Your task to perform on an android device: set the timer Image 0: 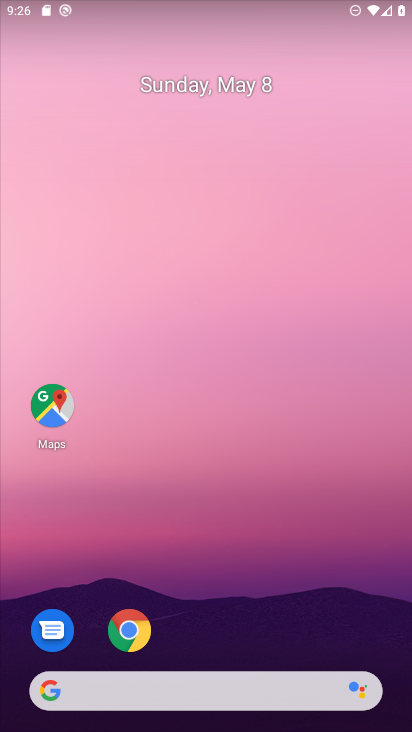
Step 0: click (345, 60)
Your task to perform on an android device: set the timer Image 1: 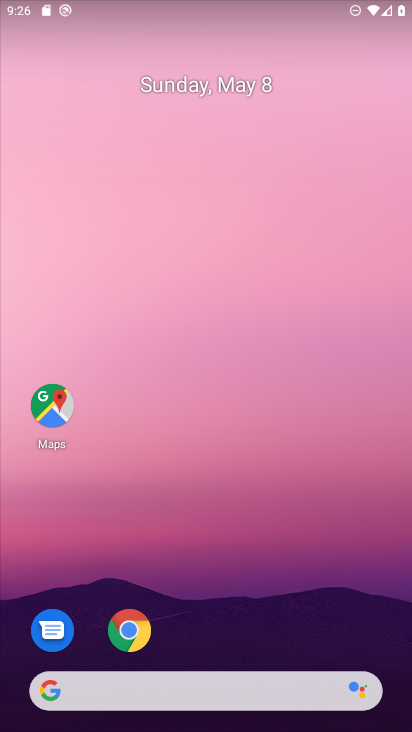
Step 1: drag from (179, 691) to (325, 208)
Your task to perform on an android device: set the timer Image 2: 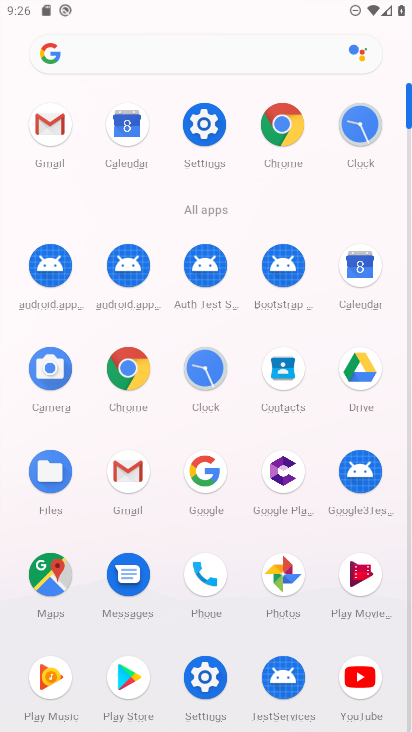
Step 2: click (204, 379)
Your task to perform on an android device: set the timer Image 3: 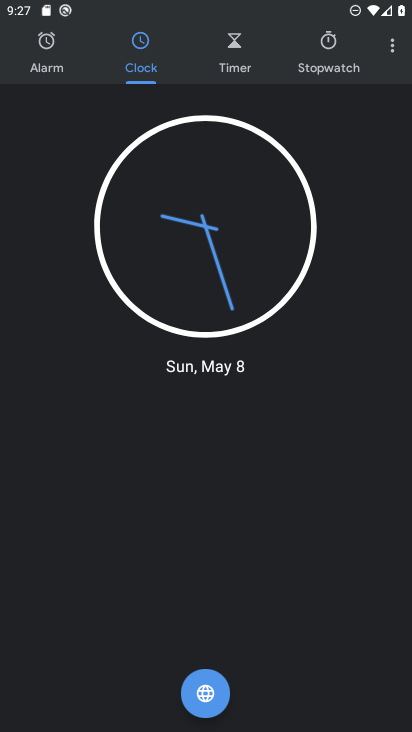
Step 3: click (237, 42)
Your task to perform on an android device: set the timer Image 4: 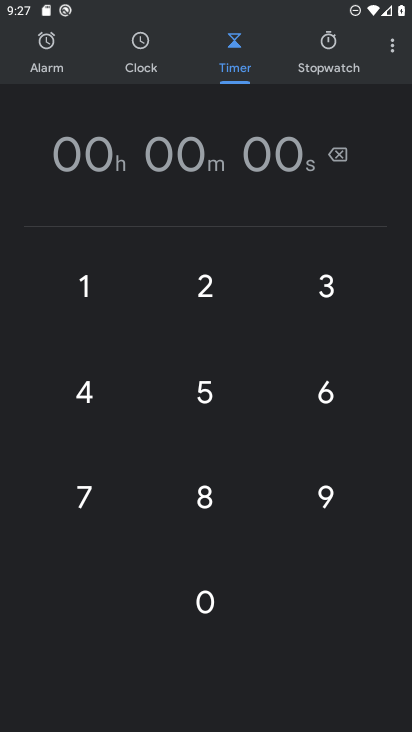
Step 4: click (92, 396)
Your task to perform on an android device: set the timer Image 5: 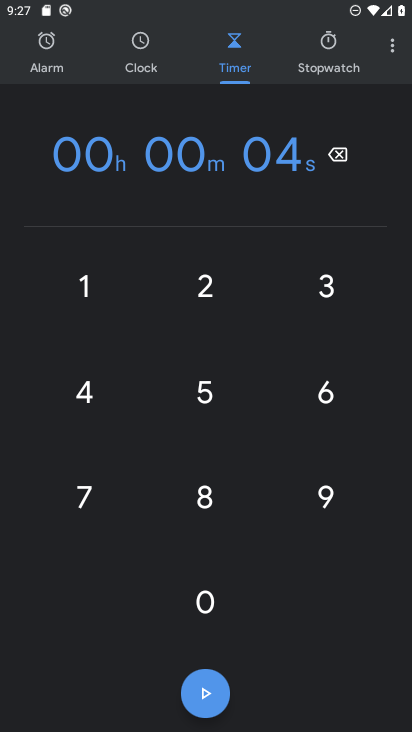
Step 5: click (84, 493)
Your task to perform on an android device: set the timer Image 6: 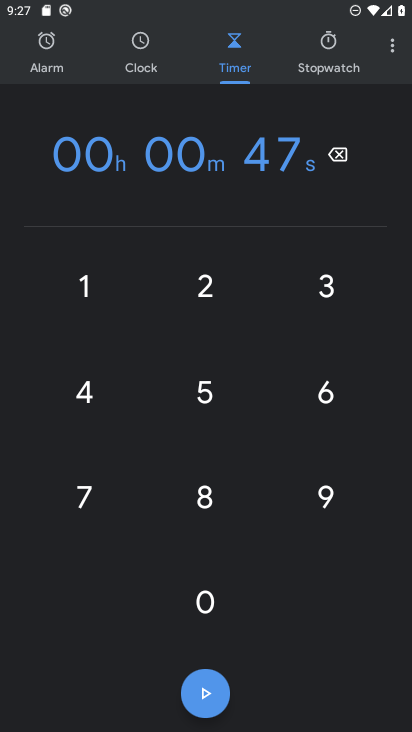
Step 6: click (217, 694)
Your task to perform on an android device: set the timer Image 7: 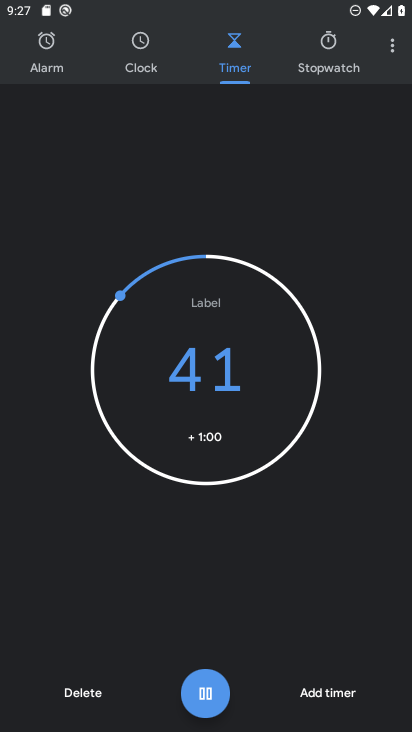
Step 7: click (206, 697)
Your task to perform on an android device: set the timer Image 8: 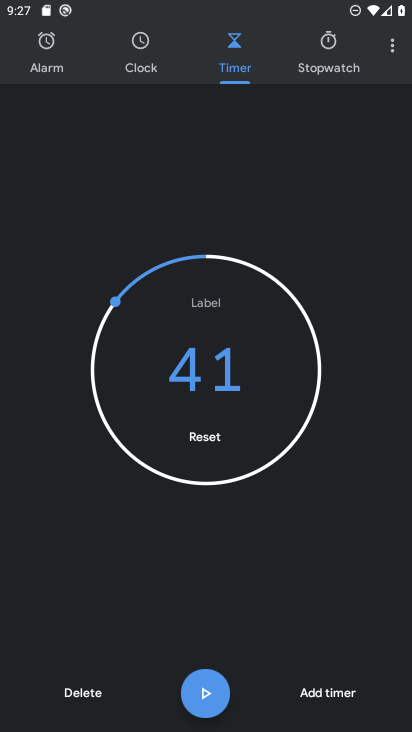
Step 8: task complete